Your task to perform on an android device: Open CNN.com Image 0: 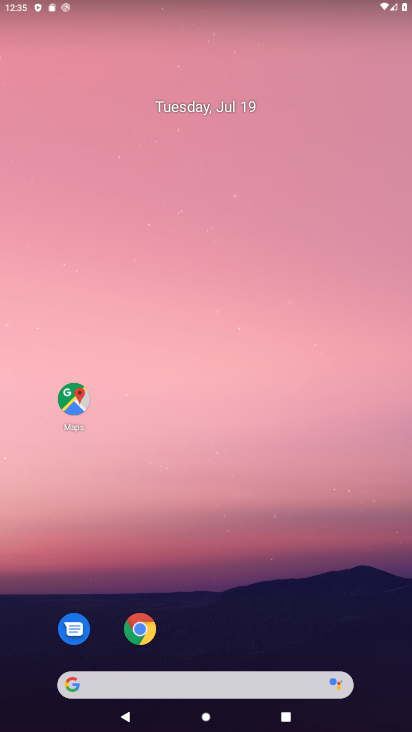
Step 0: drag from (382, 633) to (322, 115)
Your task to perform on an android device: Open CNN.com Image 1: 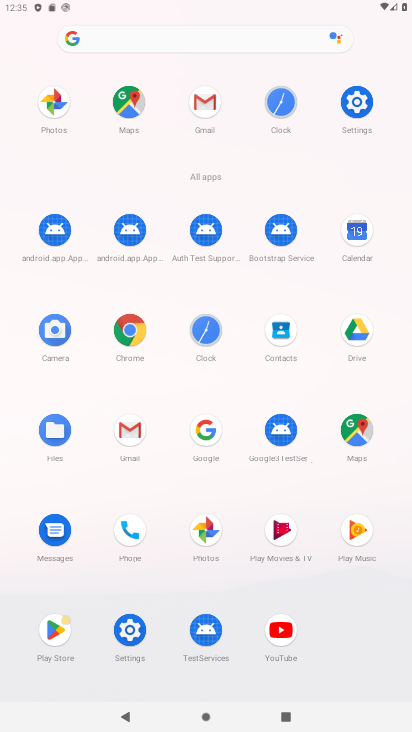
Step 1: click (127, 335)
Your task to perform on an android device: Open CNN.com Image 2: 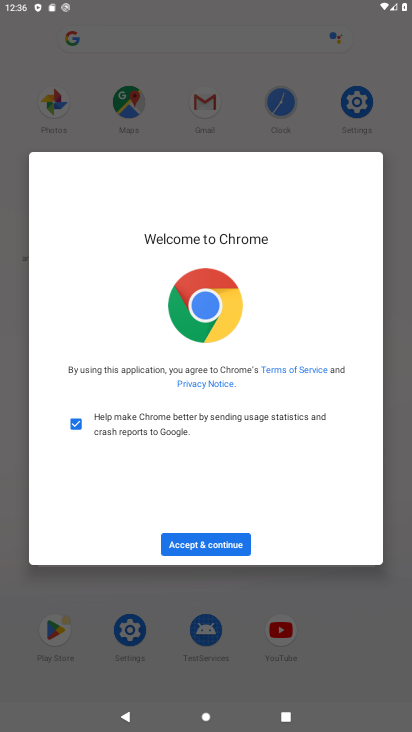
Step 2: click (222, 550)
Your task to perform on an android device: Open CNN.com Image 3: 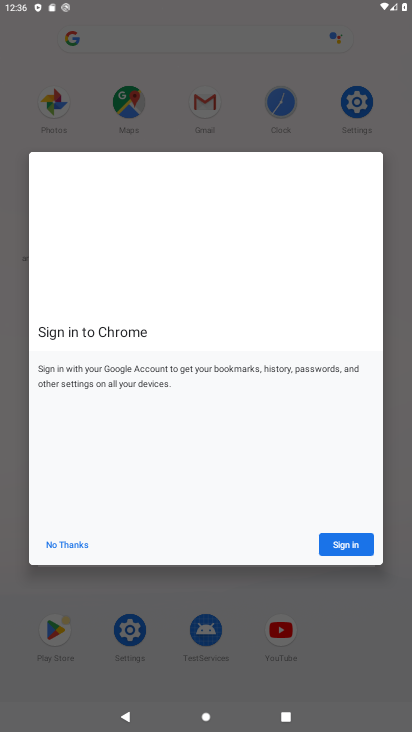
Step 3: click (333, 542)
Your task to perform on an android device: Open CNN.com Image 4: 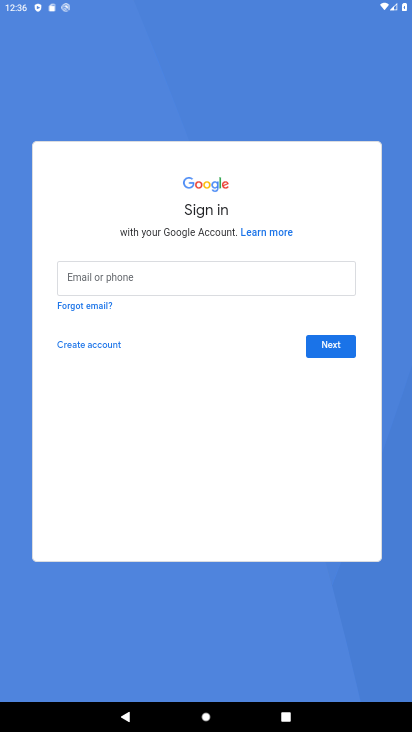
Step 4: task complete